Your task to perform on an android device: open chrome and create a bookmark for the current page Image 0: 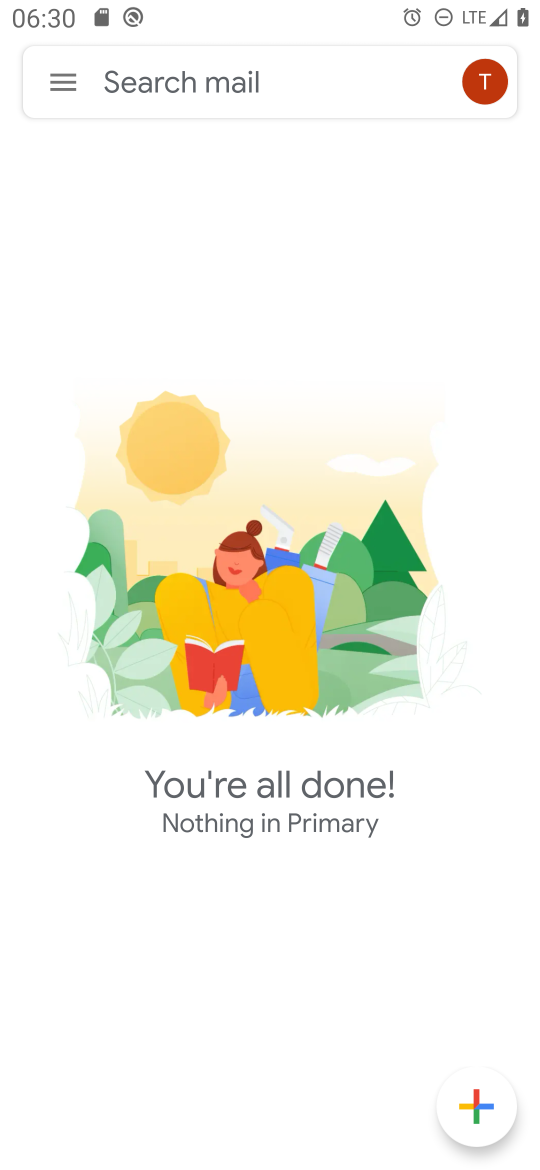
Step 0: press home button
Your task to perform on an android device: open chrome and create a bookmark for the current page Image 1: 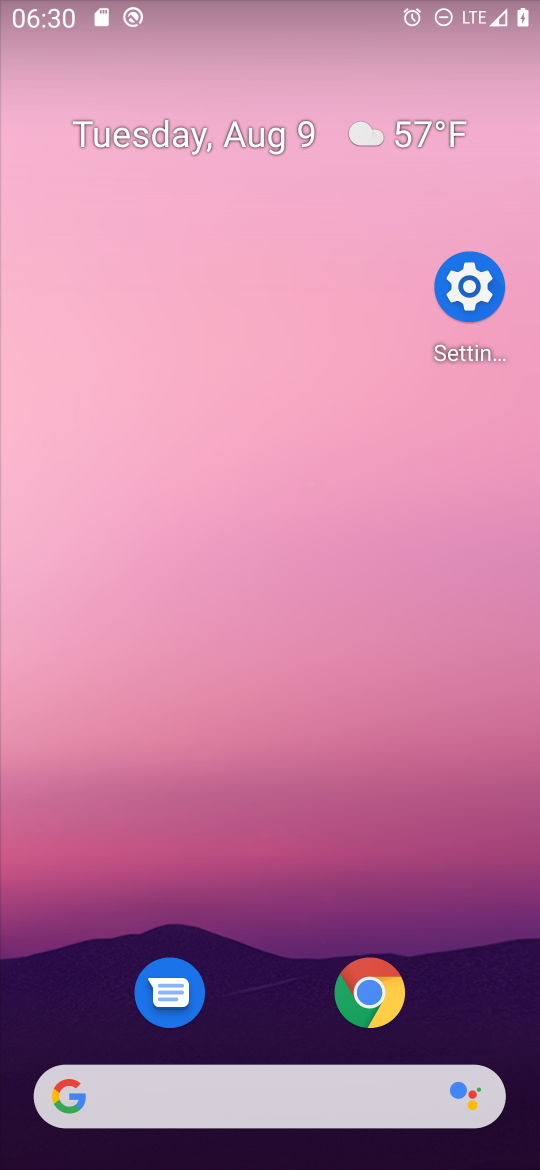
Step 1: drag from (223, 1091) to (155, 28)
Your task to perform on an android device: open chrome and create a bookmark for the current page Image 2: 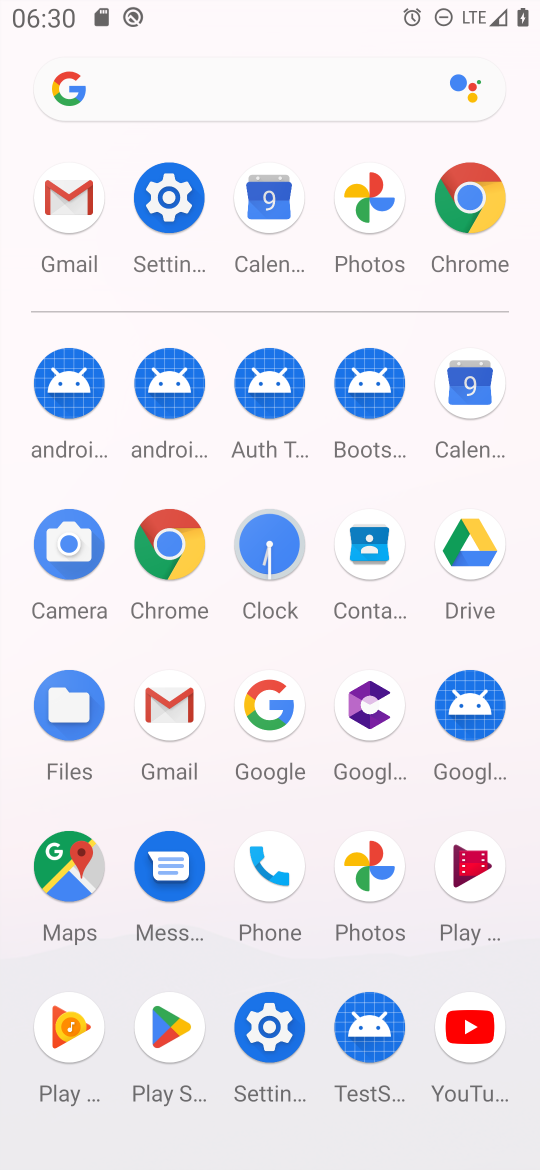
Step 2: click (176, 533)
Your task to perform on an android device: open chrome and create a bookmark for the current page Image 3: 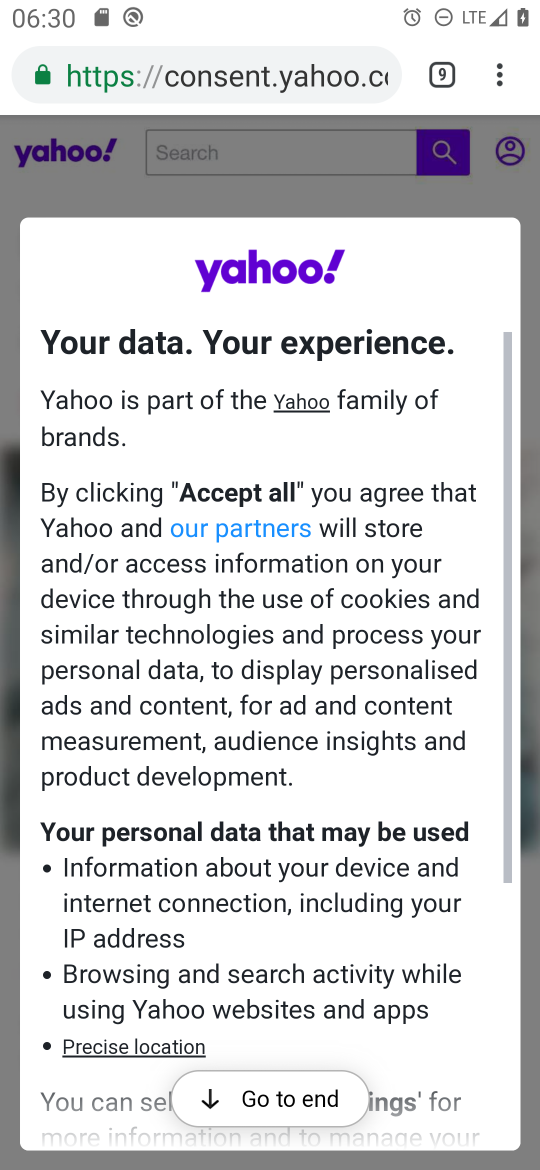
Step 3: click (485, 77)
Your task to perform on an android device: open chrome and create a bookmark for the current page Image 4: 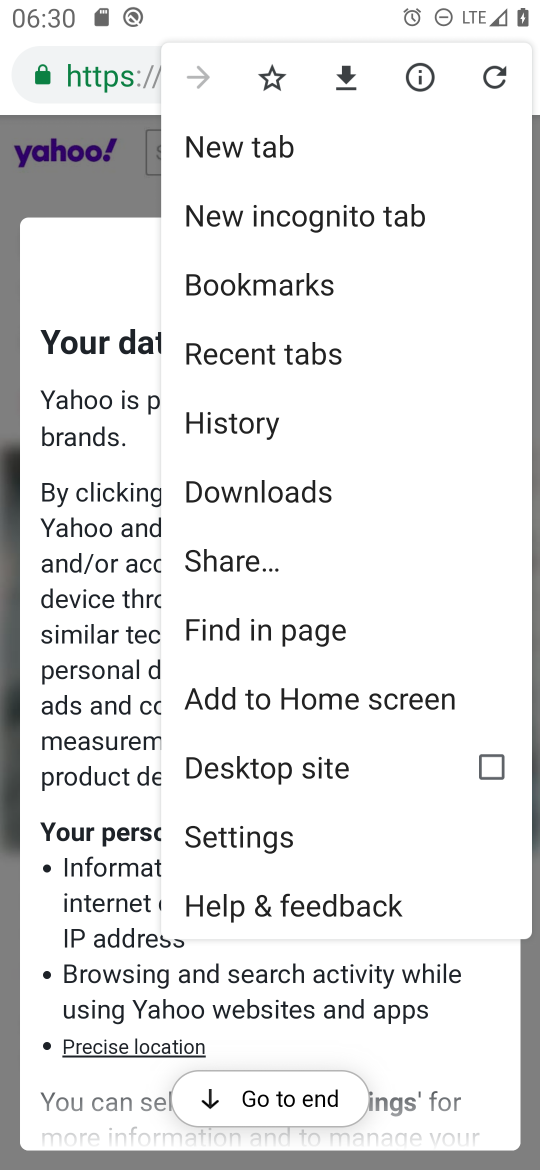
Step 4: click (280, 297)
Your task to perform on an android device: open chrome and create a bookmark for the current page Image 5: 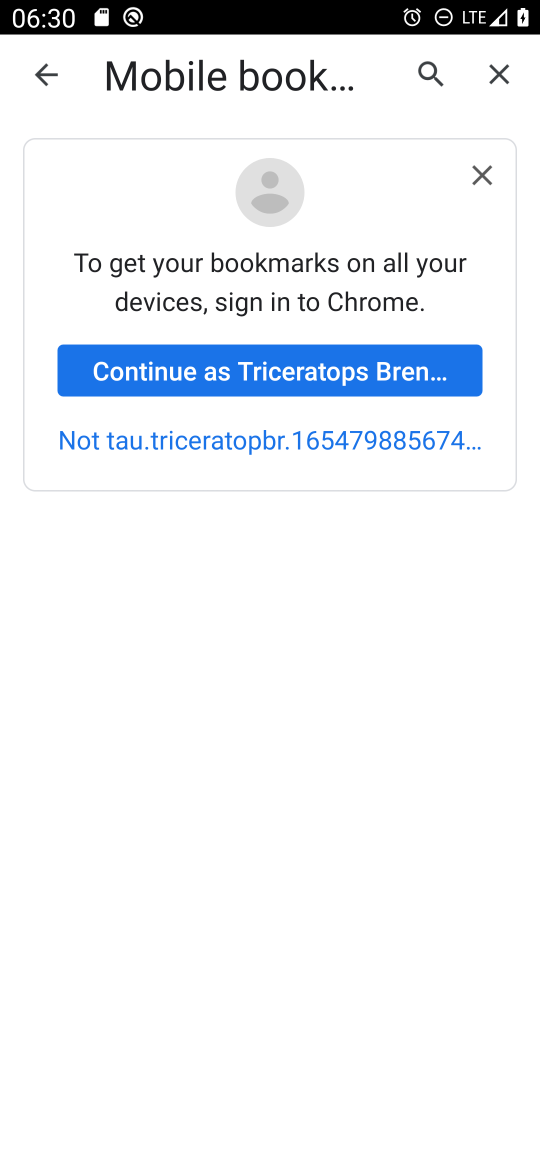
Step 5: press back button
Your task to perform on an android device: open chrome and create a bookmark for the current page Image 6: 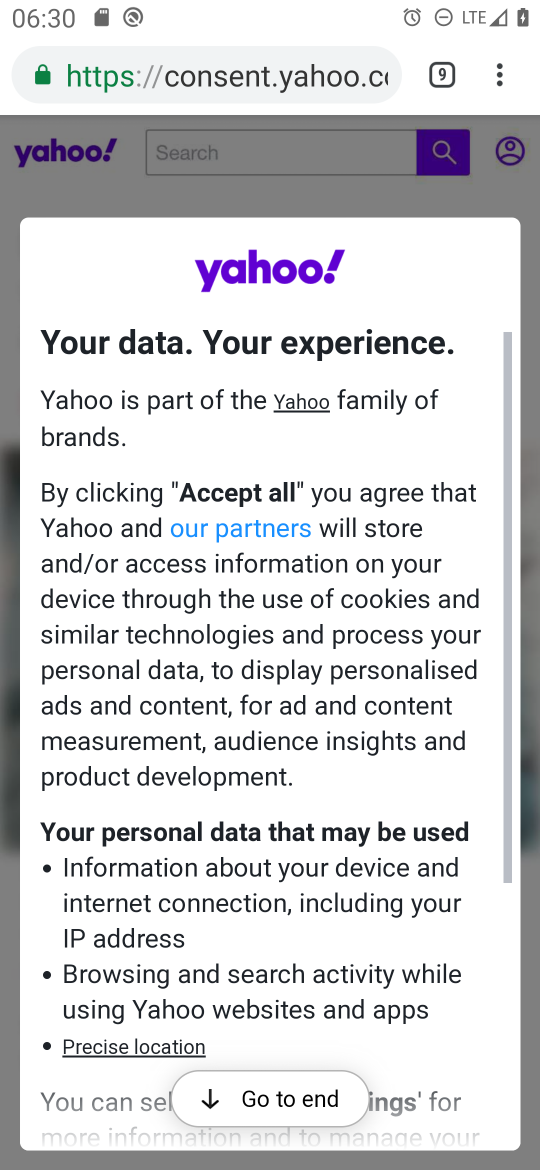
Step 6: click (501, 61)
Your task to perform on an android device: open chrome and create a bookmark for the current page Image 7: 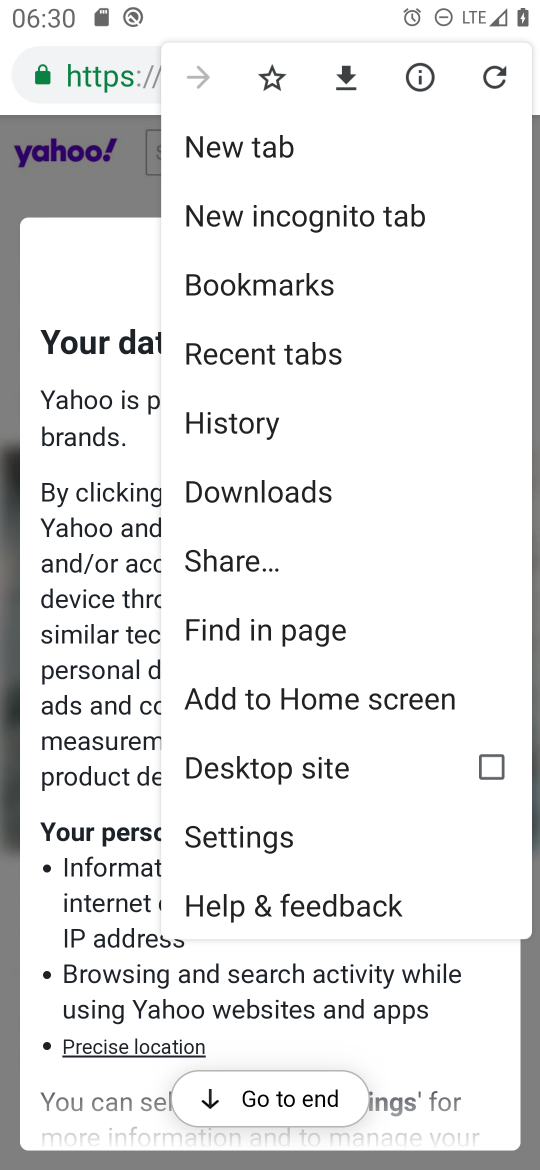
Step 7: click (264, 66)
Your task to perform on an android device: open chrome and create a bookmark for the current page Image 8: 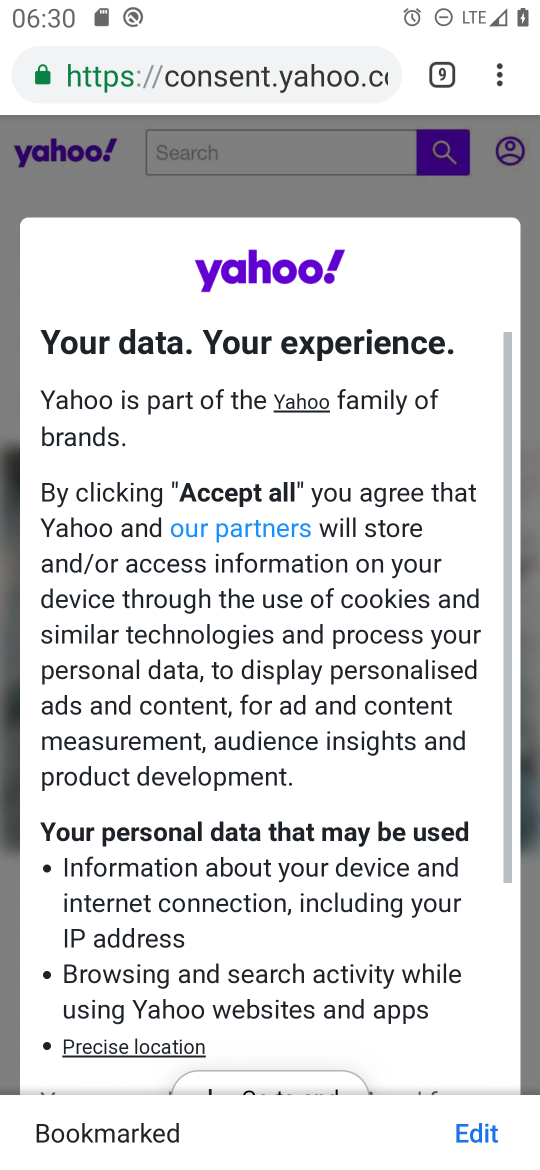
Step 8: task complete